Your task to perform on an android device: turn off wifi Image 0: 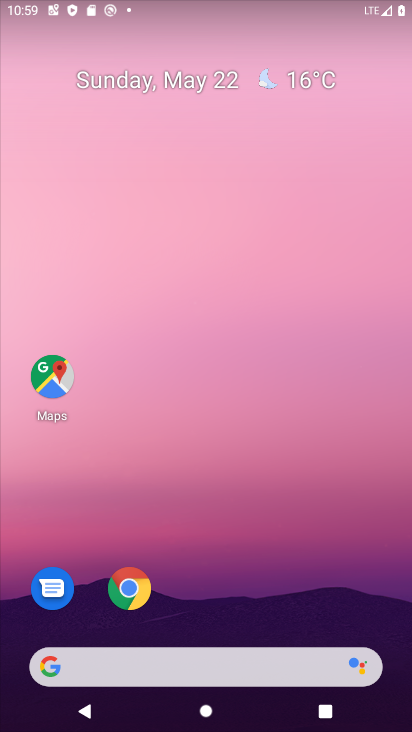
Step 0: drag from (218, 625) to (218, 142)
Your task to perform on an android device: turn off wifi Image 1: 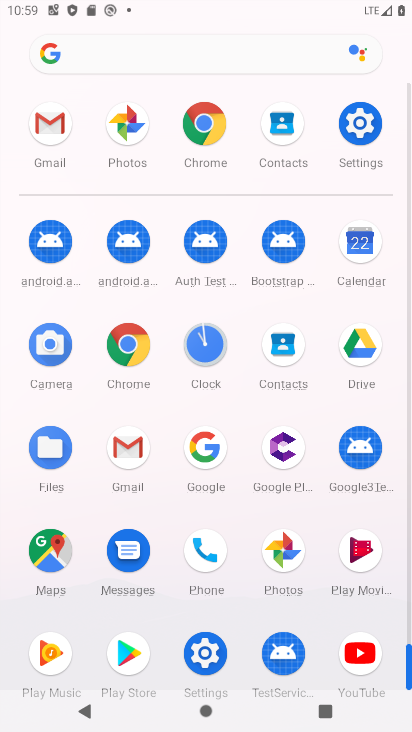
Step 1: click (375, 122)
Your task to perform on an android device: turn off wifi Image 2: 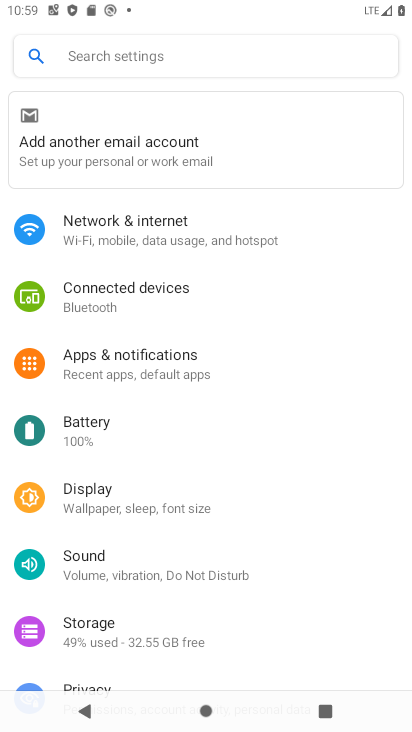
Step 2: click (146, 220)
Your task to perform on an android device: turn off wifi Image 3: 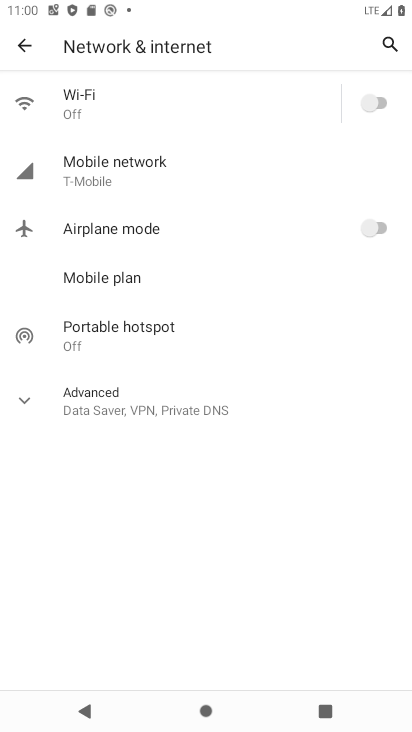
Step 3: task complete